Your task to perform on an android device: What's on my calendar tomorrow? Image 0: 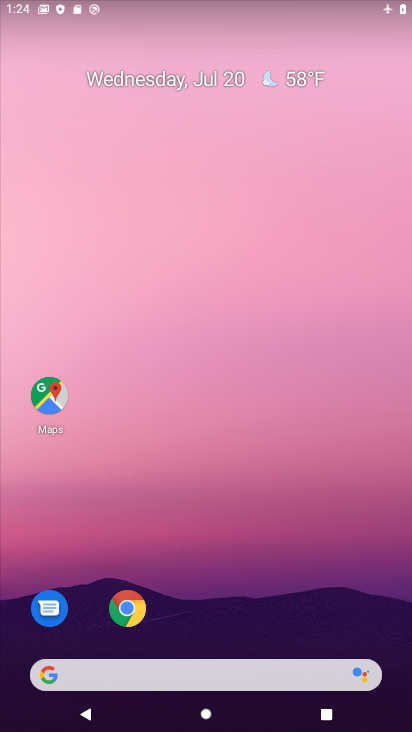
Step 0: drag from (240, 725) to (258, 153)
Your task to perform on an android device: What's on my calendar tomorrow? Image 1: 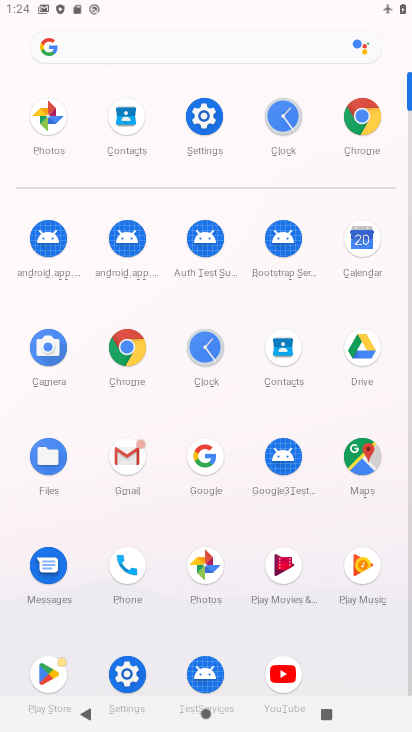
Step 1: click (361, 239)
Your task to perform on an android device: What's on my calendar tomorrow? Image 2: 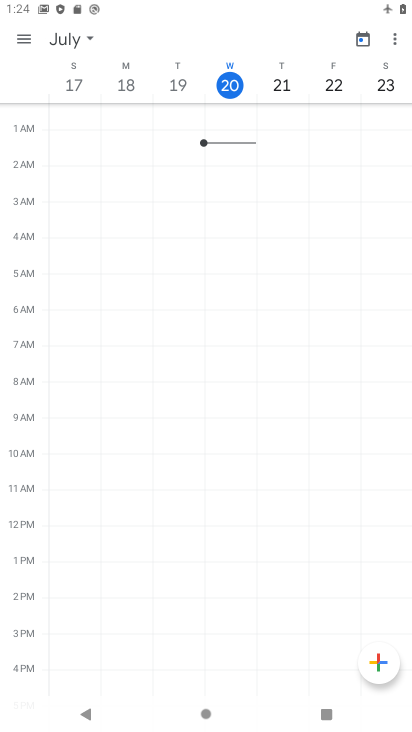
Step 2: click (278, 76)
Your task to perform on an android device: What's on my calendar tomorrow? Image 3: 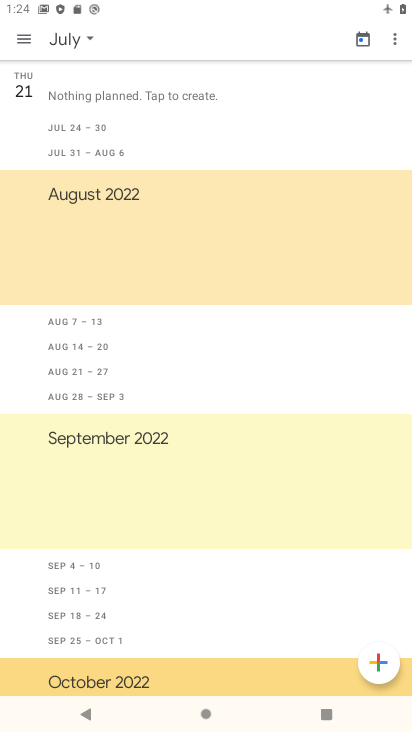
Step 3: task complete